Your task to perform on an android device: Check the weather Image 0: 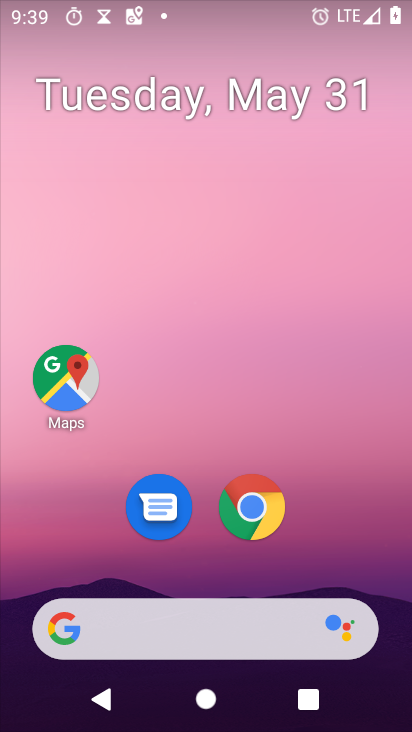
Step 0: click (218, 641)
Your task to perform on an android device: Check the weather Image 1: 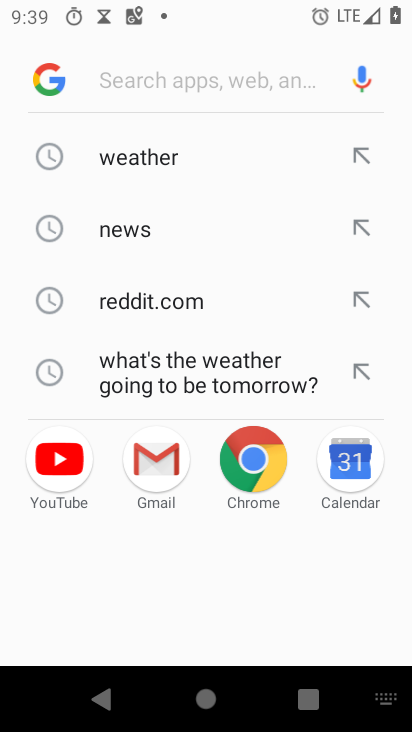
Step 1: click (108, 156)
Your task to perform on an android device: Check the weather Image 2: 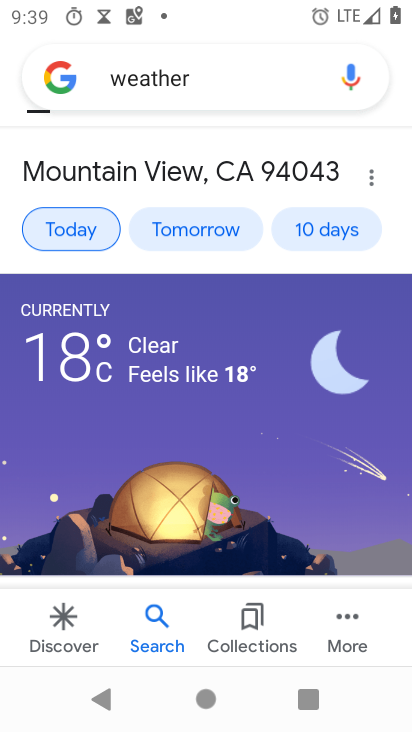
Step 2: task complete